Your task to perform on an android device: turn on the 24-hour format for clock Image 0: 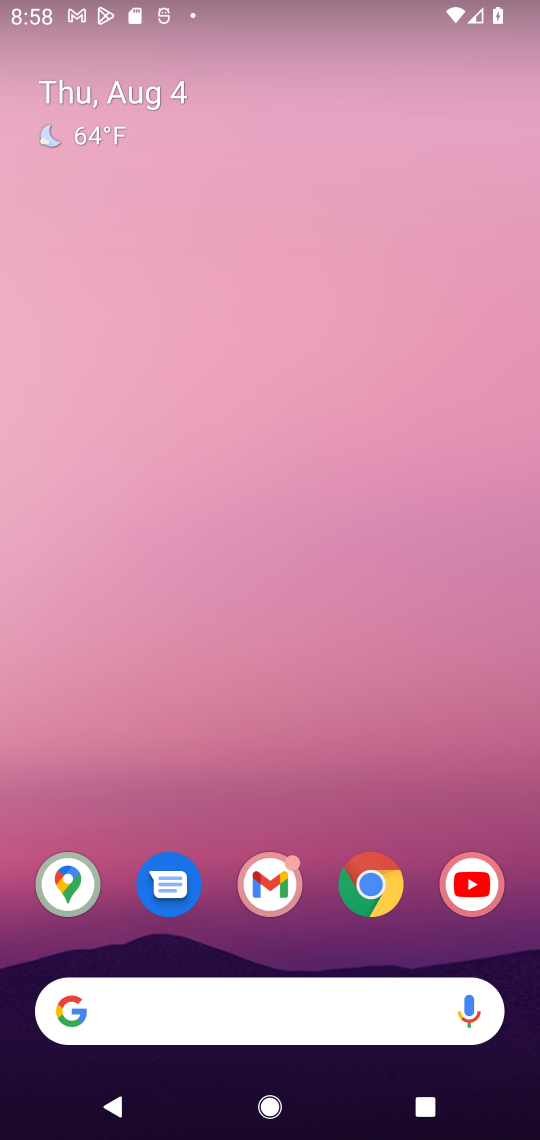
Step 0: drag from (293, 984) to (347, 323)
Your task to perform on an android device: turn on the 24-hour format for clock Image 1: 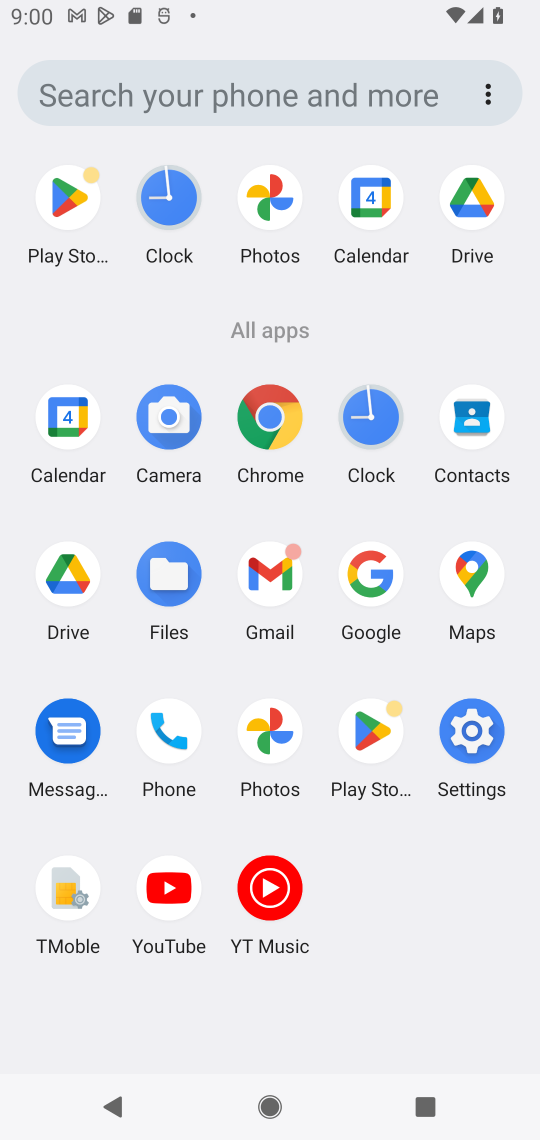
Step 1: click (384, 431)
Your task to perform on an android device: turn on the 24-hour format for clock Image 2: 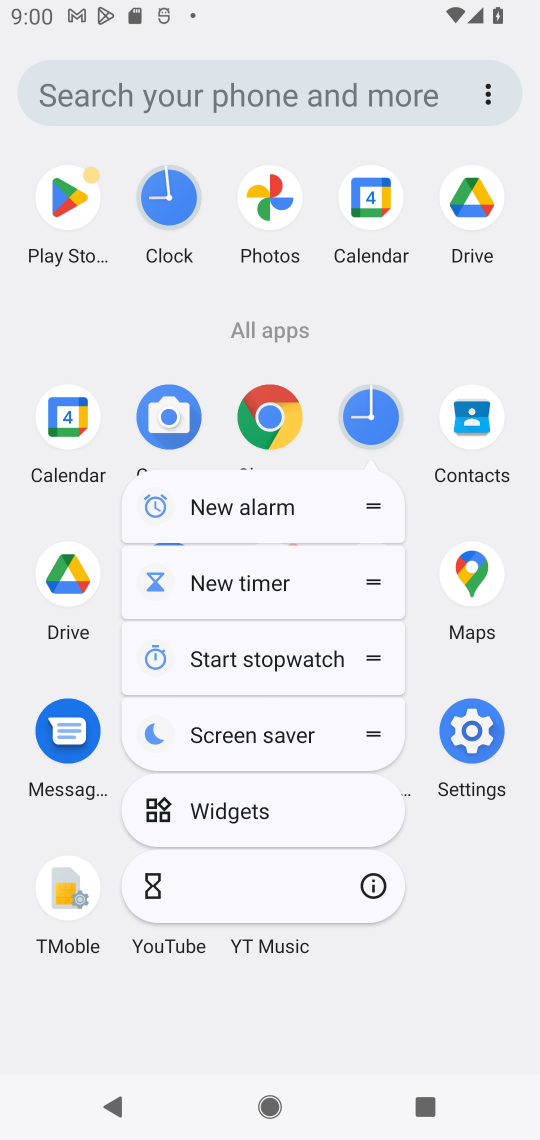
Step 2: click (384, 431)
Your task to perform on an android device: turn on the 24-hour format for clock Image 3: 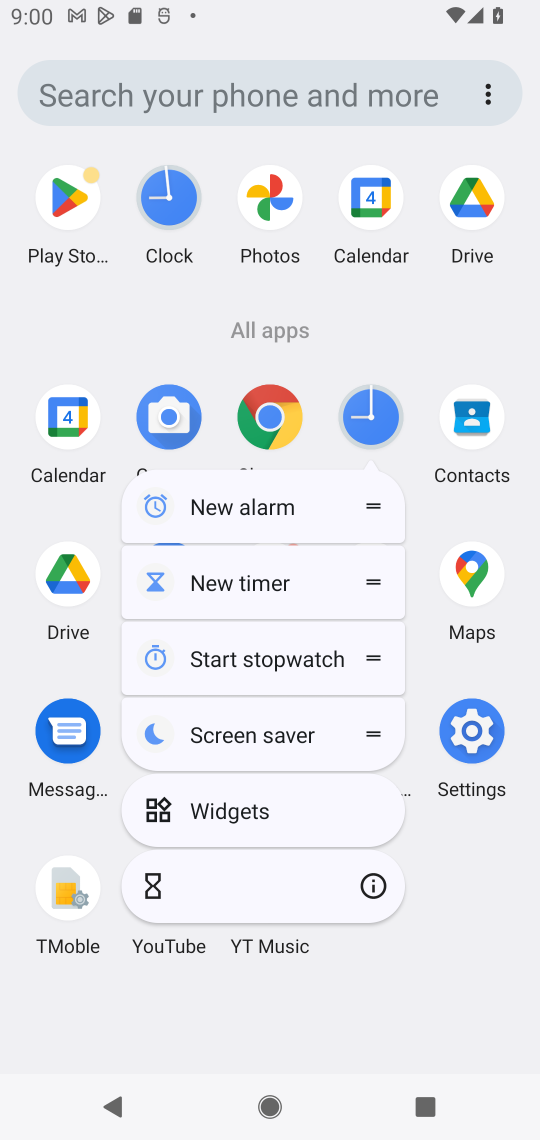
Step 3: click (384, 428)
Your task to perform on an android device: turn on the 24-hour format for clock Image 4: 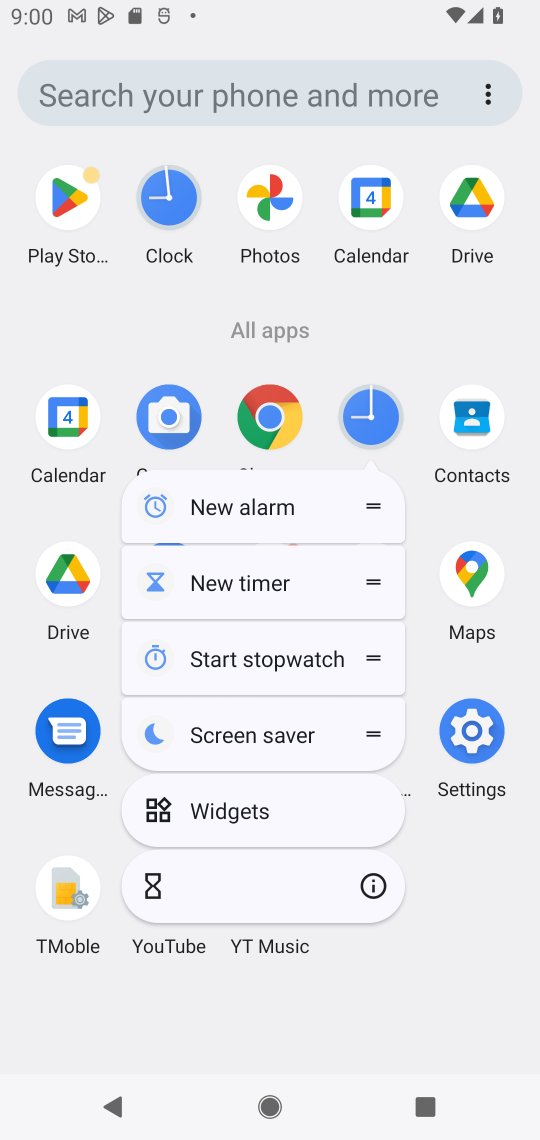
Step 4: click (371, 399)
Your task to perform on an android device: turn on the 24-hour format for clock Image 5: 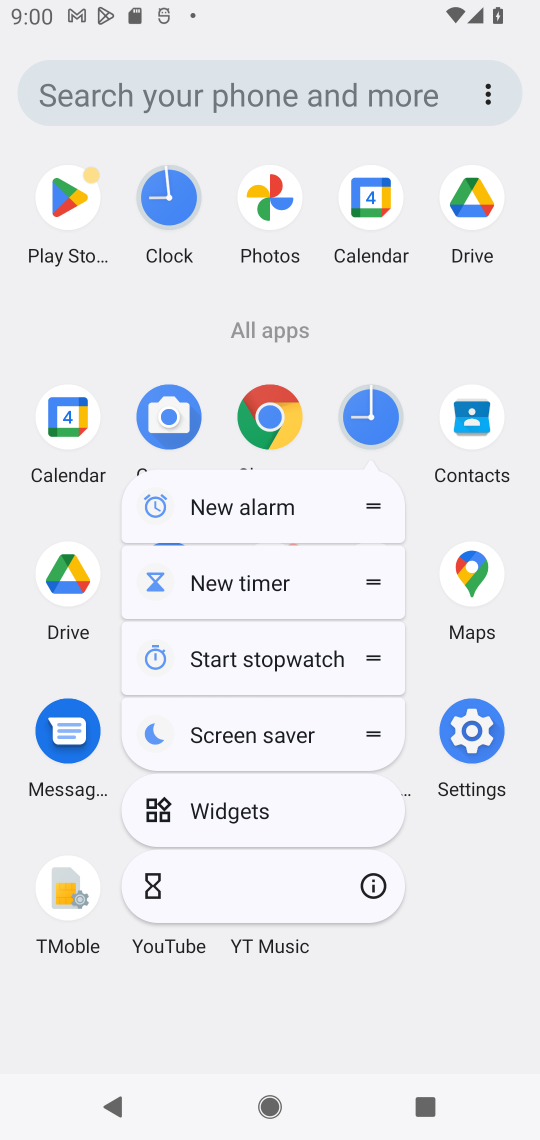
Step 5: click (352, 426)
Your task to perform on an android device: turn on the 24-hour format for clock Image 6: 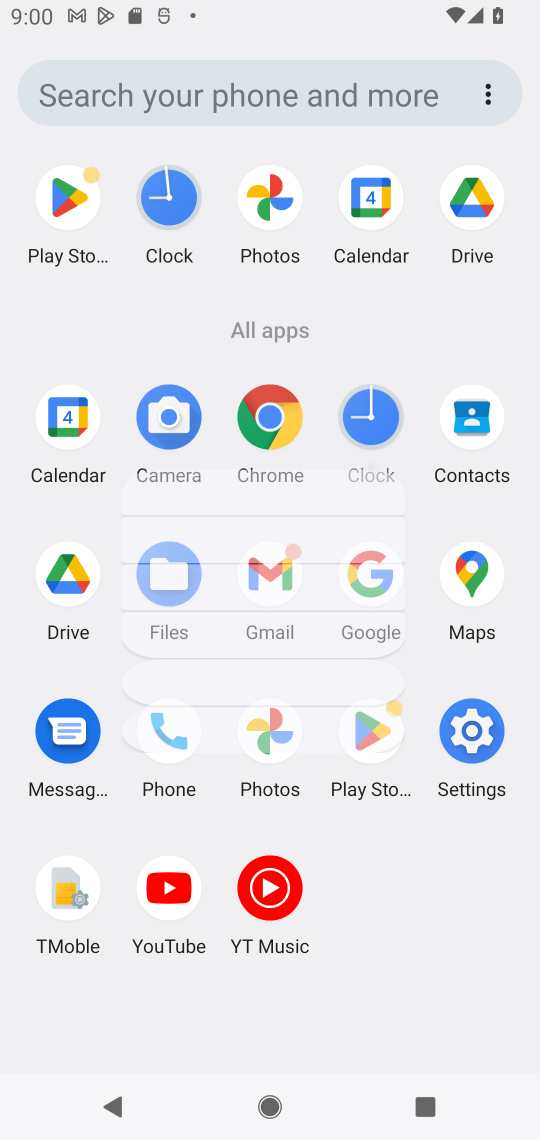
Step 6: click (352, 426)
Your task to perform on an android device: turn on the 24-hour format for clock Image 7: 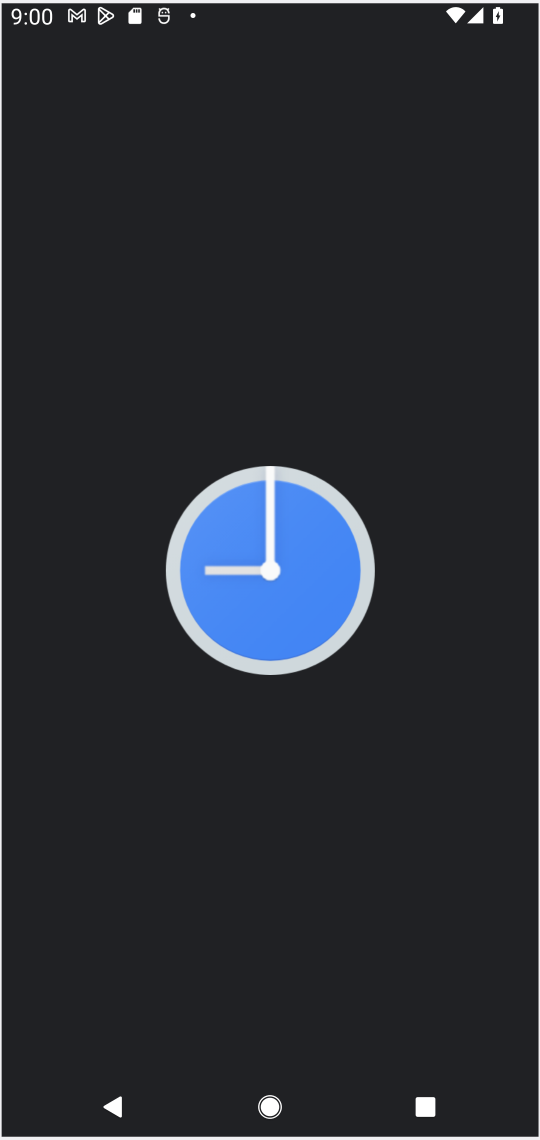
Step 7: click (384, 411)
Your task to perform on an android device: turn on the 24-hour format for clock Image 8: 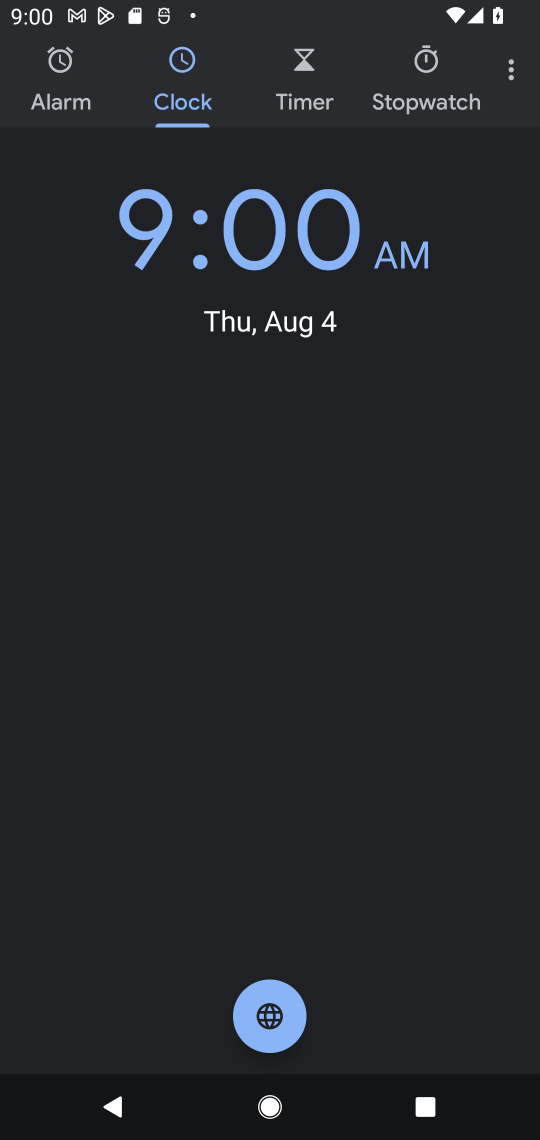
Step 8: click (492, 69)
Your task to perform on an android device: turn on the 24-hour format for clock Image 9: 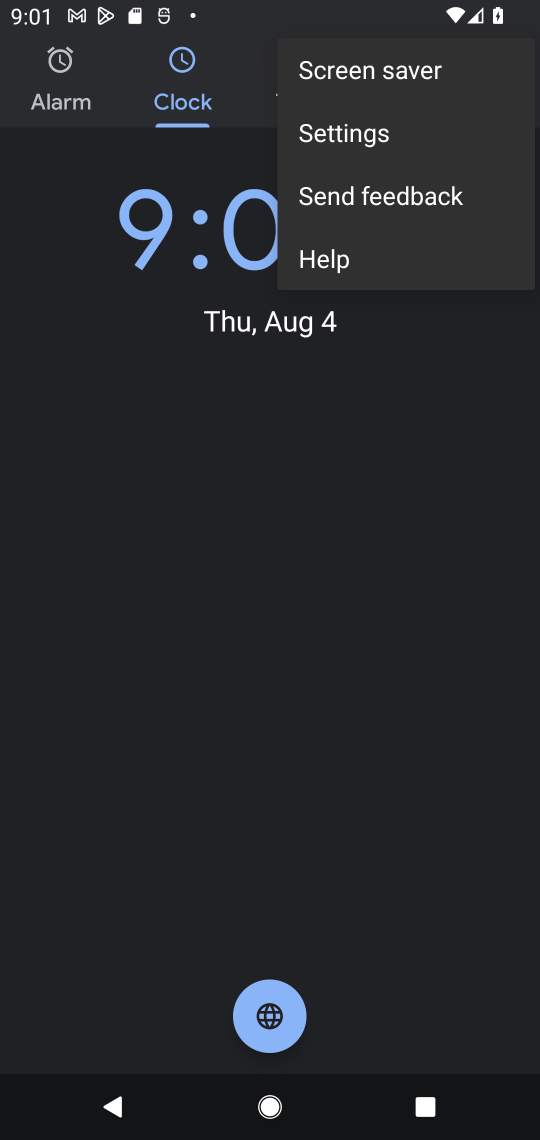
Step 9: click (389, 121)
Your task to perform on an android device: turn on the 24-hour format for clock Image 10: 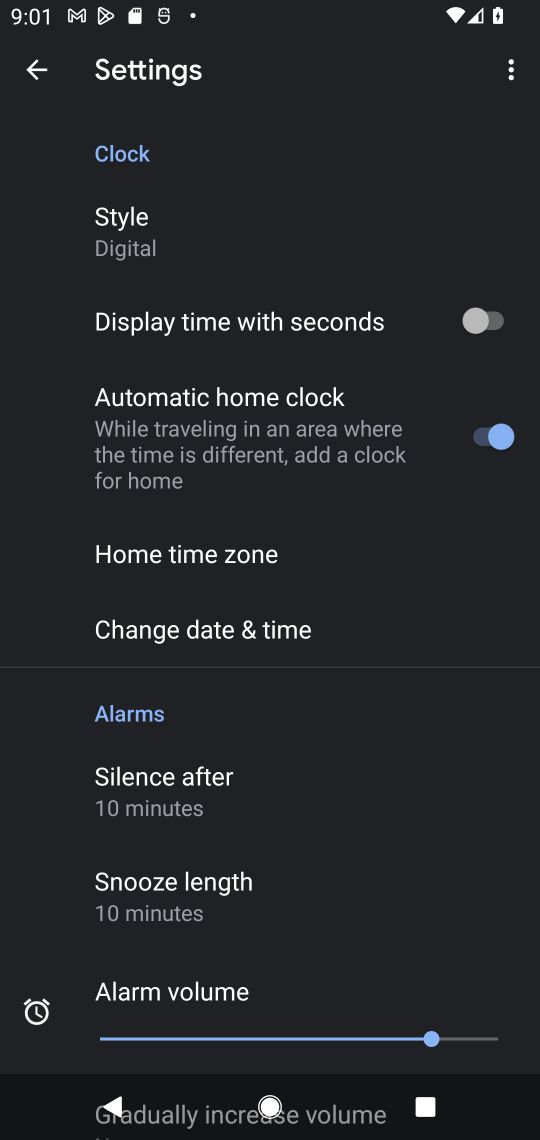
Step 10: click (383, 643)
Your task to perform on an android device: turn on the 24-hour format for clock Image 11: 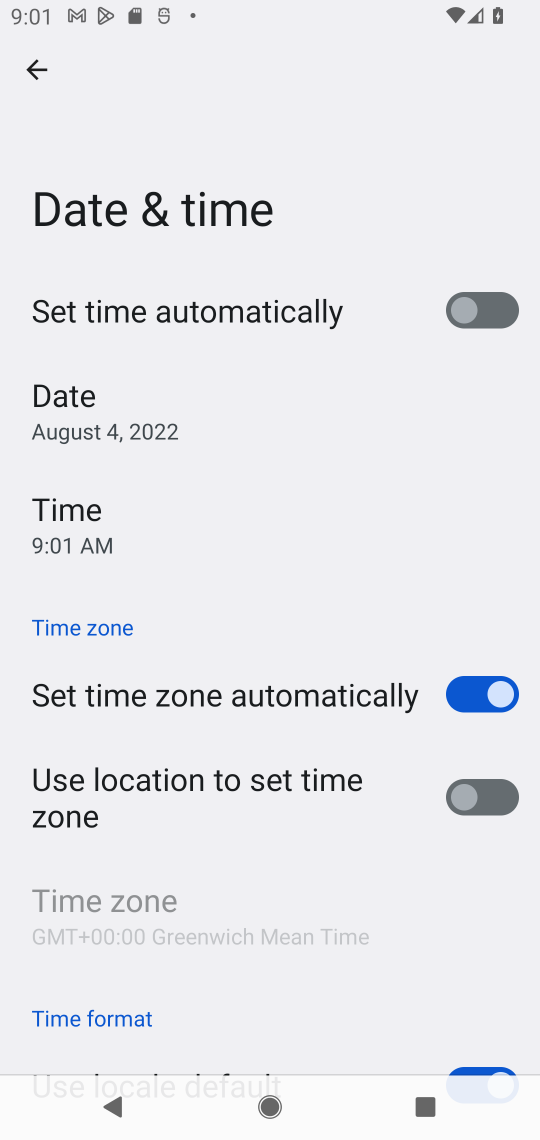
Step 11: drag from (382, 829) to (339, 144)
Your task to perform on an android device: turn on the 24-hour format for clock Image 12: 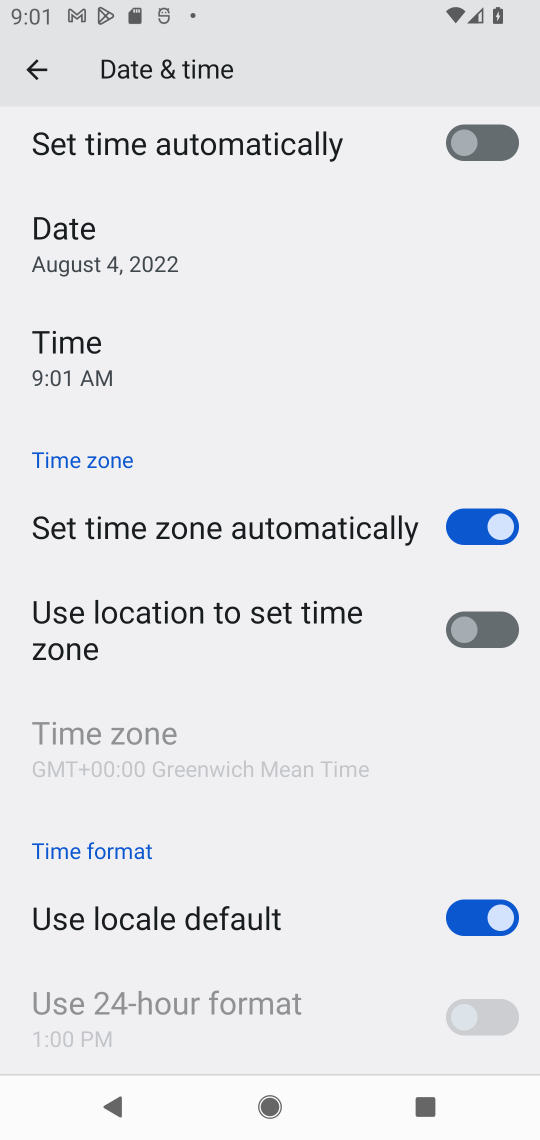
Step 12: click (491, 932)
Your task to perform on an android device: turn on the 24-hour format for clock Image 13: 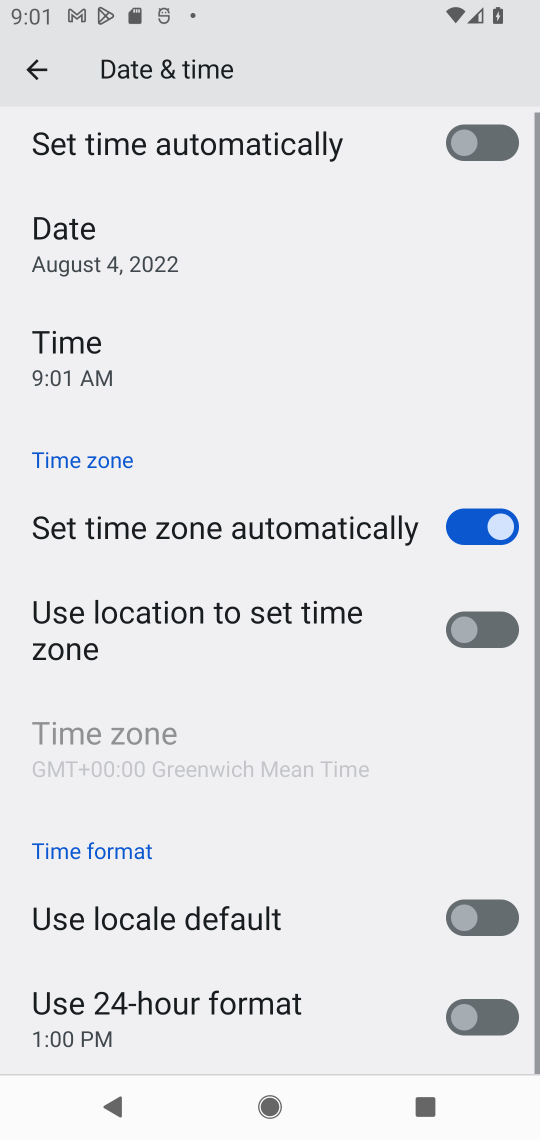
Step 13: click (489, 1016)
Your task to perform on an android device: turn on the 24-hour format for clock Image 14: 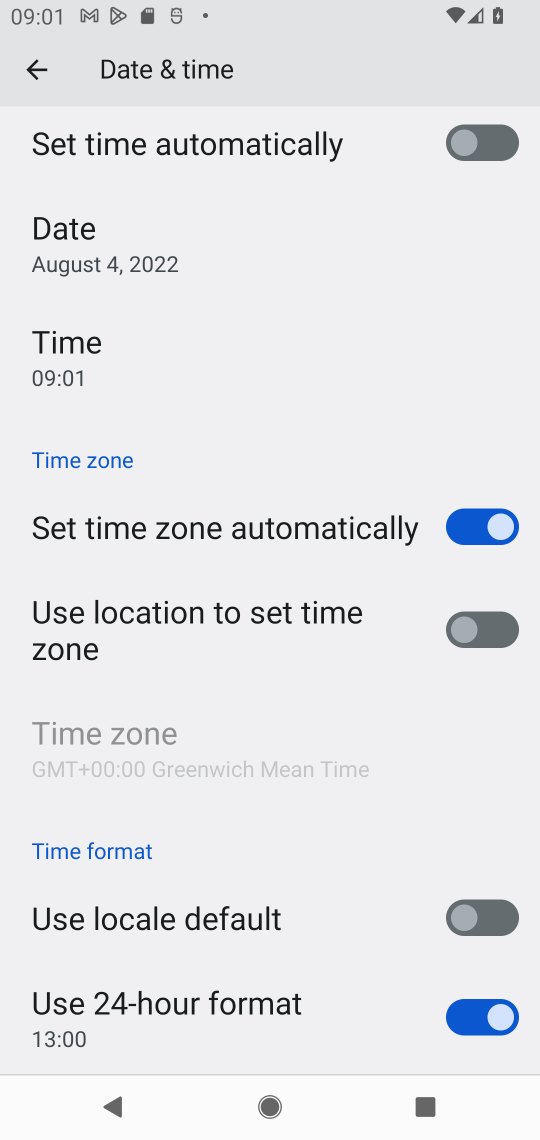
Step 14: task complete